Your task to perform on an android device: allow notifications from all sites in the chrome app Image 0: 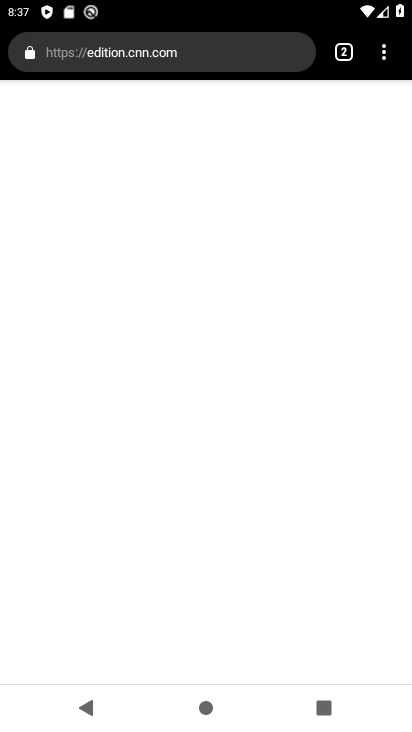
Step 0: press home button
Your task to perform on an android device: allow notifications from all sites in the chrome app Image 1: 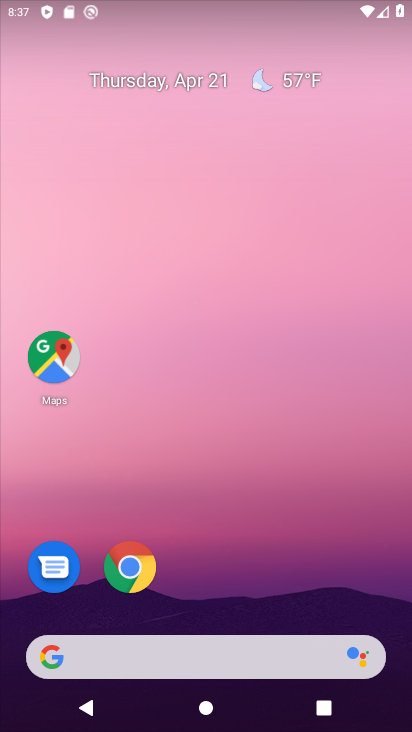
Step 1: drag from (227, 627) to (198, 43)
Your task to perform on an android device: allow notifications from all sites in the chrome app Image 2: 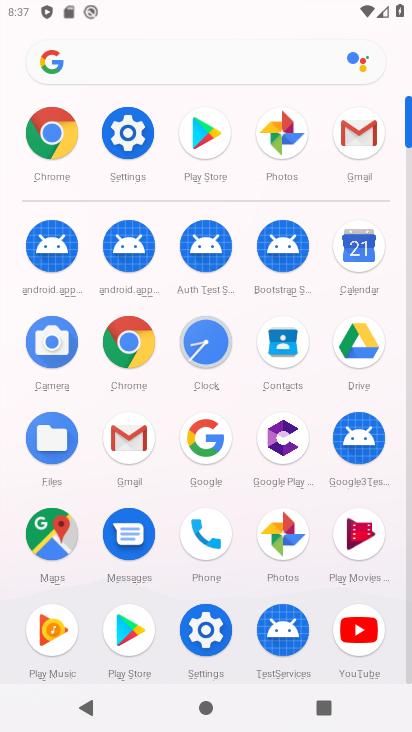
Step 2: click (126, 340)
Your task to perform on an android device: allow notifications from all sites in the chrome app Image 3: 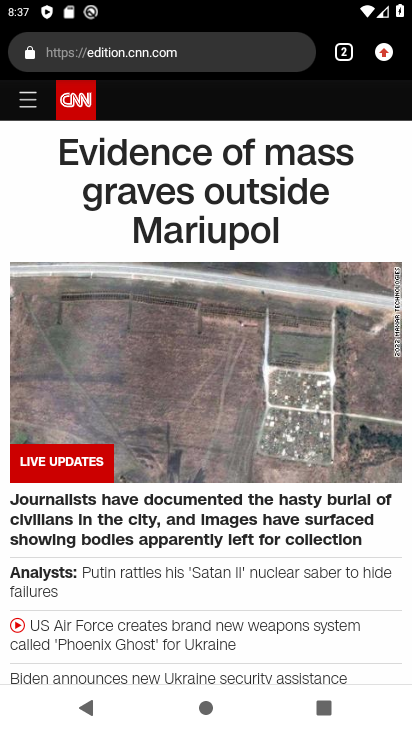
Step 3: drag from (377, 51) to (198, 618)
Your task to perform on an android device: allow notifications from all sites in the chrome app Image 4: 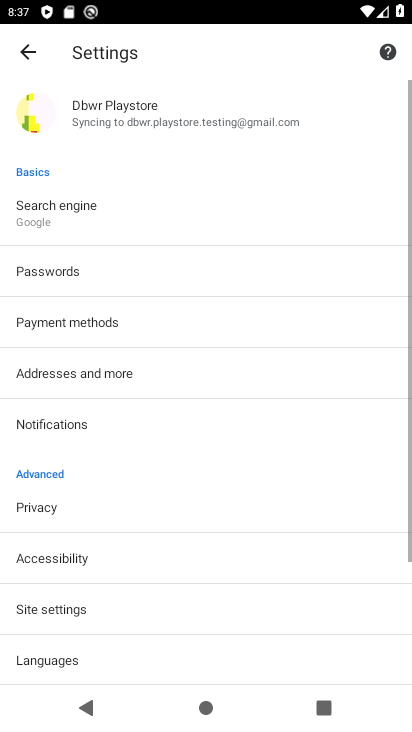
Step 4: drag from (196, 605) to (198, 203)
Your task to perform on an android device: allow notifications from all sites in the chrome app Image 5: 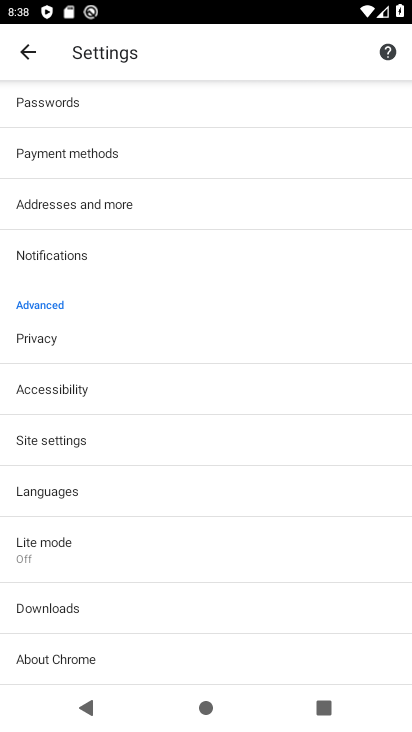
Step 5: click (62, 246)
Your task to perform on an android device: allow notifications from all sites in the chrome app Image 6: 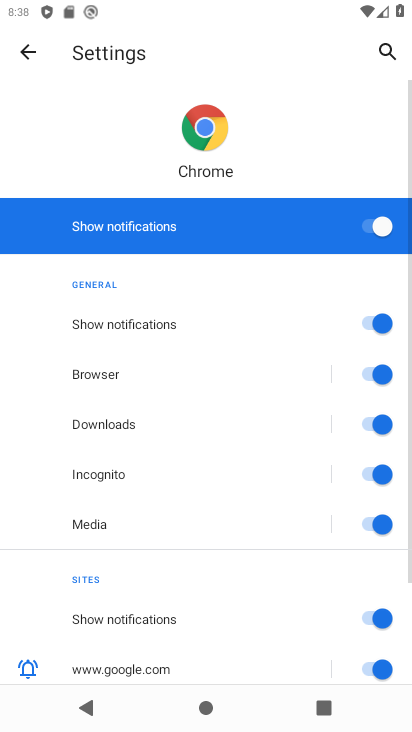
Step 6: click (24, 66)
Your task to perform on an android device: allow notifications from all sites in the chrome app Image 7: 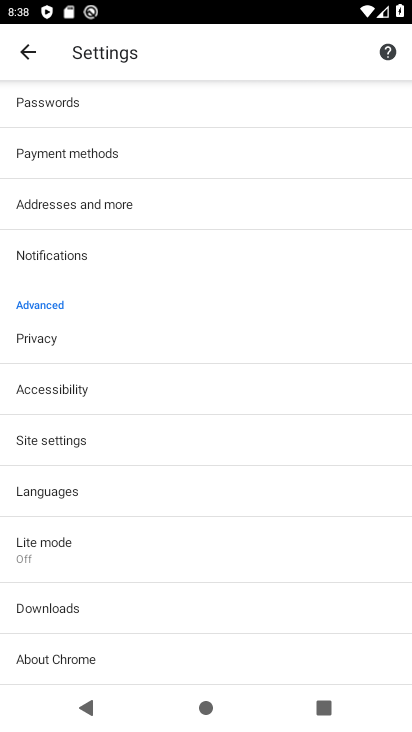
Step 7: click (81, 433)
Your task to perform on an android device: allow notifications from all sites in the chrome app Image 8: 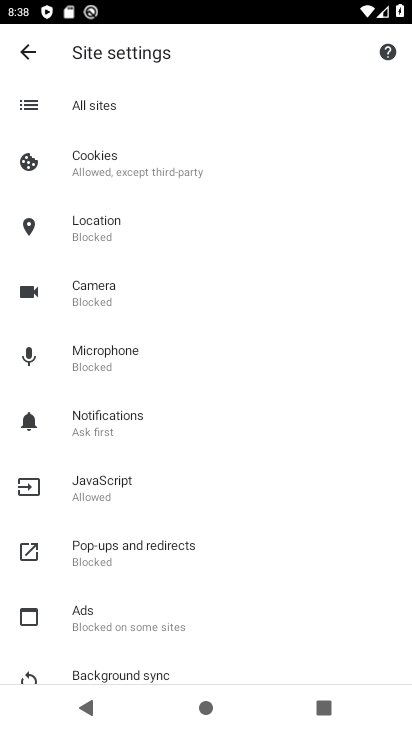
Step 8: click (110, 429)
Your task to perform on an android device: allow notifications from all sites in the chrome app Image 9: 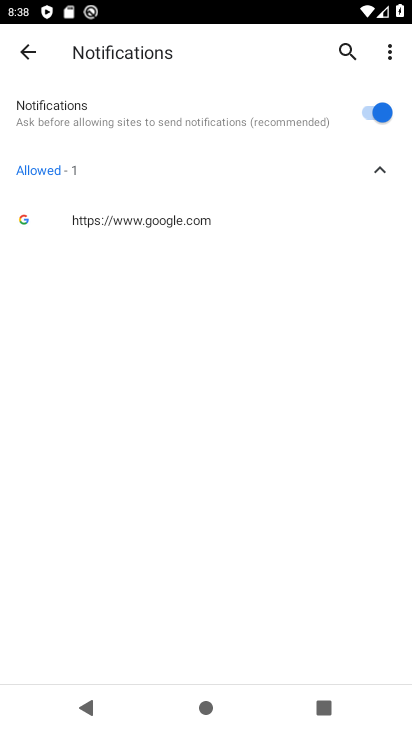
Step 9: task complete